Your task to perform on an android device: Set the phone to "Do not disturb". Image 0: 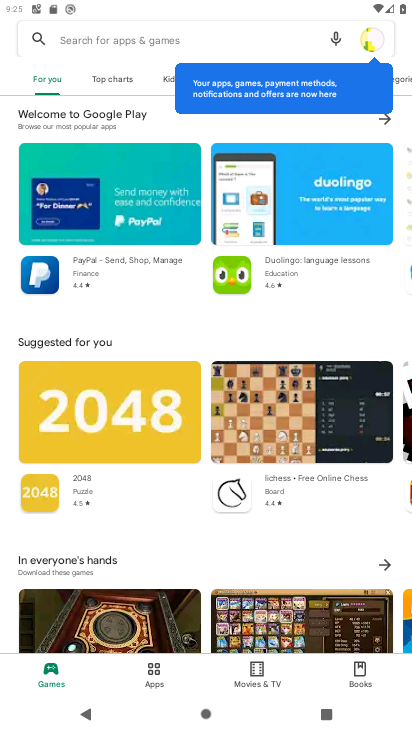
Step 0: press home button
Your task to perform on an android device: Set the phone to "Do not disturb". Image 1: 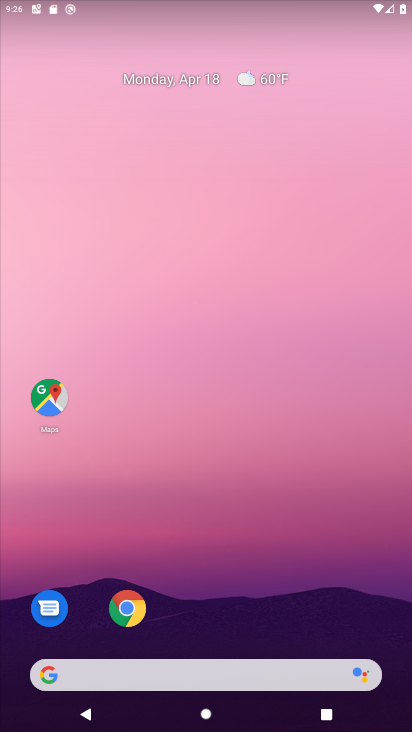
Step 1: drag from (304, 210) to (291, 116)
Your task to perform on an android device: Set the phone to "Do not disturb". Image 2: 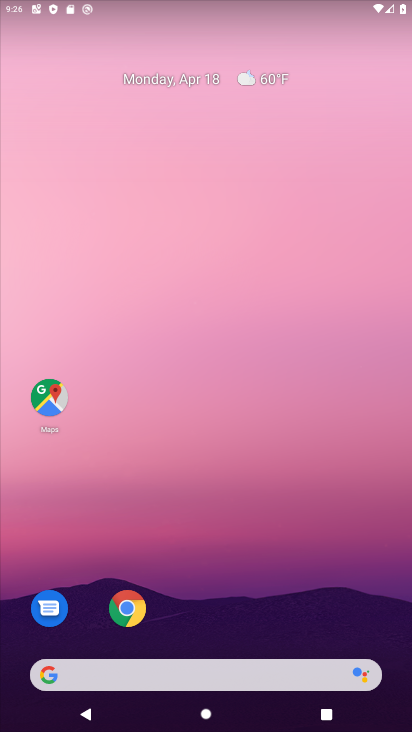
Step 2: drag from (334, 313) to (319, 181)
Your task to perform on an android device: Set the phone to "Do not disturb". Image 3: 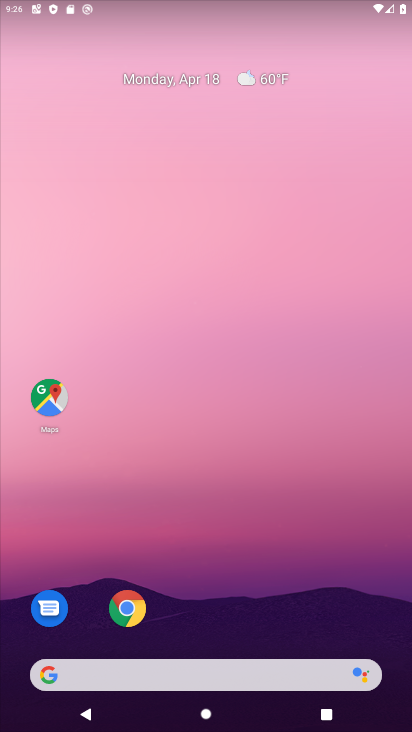
Step 3: drag from (336, 436) to (296, 96)
Your task to perform on an android device: Set the phone to "Do not disturb". Image 4: 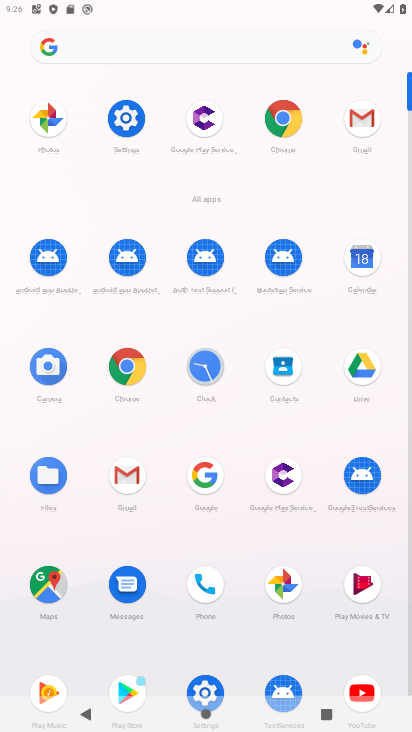
Step 4: click (132, 116)
Your task to perform on an android device: Set the phone to "Do not disturb". Image 5: 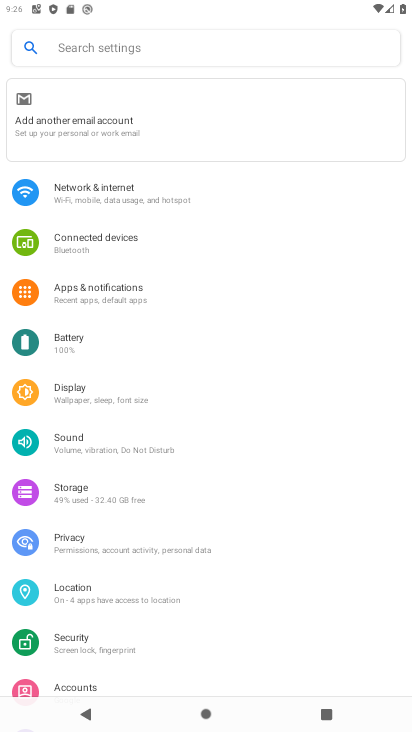
Step 5: click (62, 437)
Your task to perform on an android device: Set the phone to "Do not disturb". Image 6: 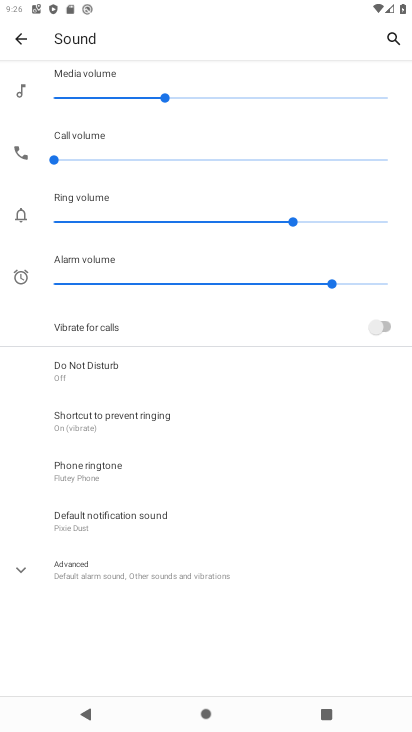
Step 6: click (89, 369)
Your task to perform on an android device: Set the phone to "Do not disturb". Image 7: 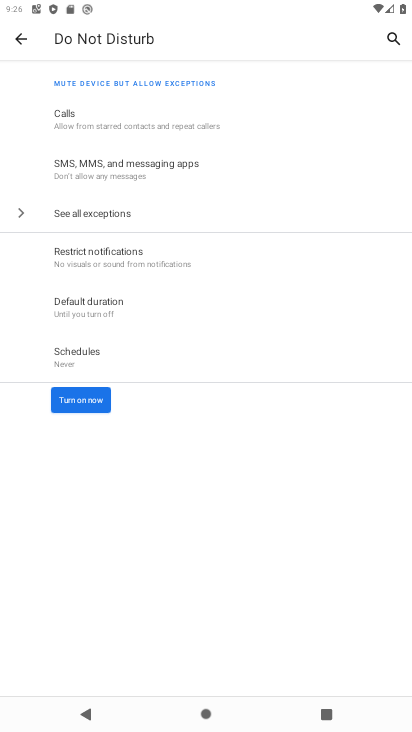
Step 7: click (80, 397)
Your task to perform on an android device: Set the phone to "Do not disturb". Image 8: 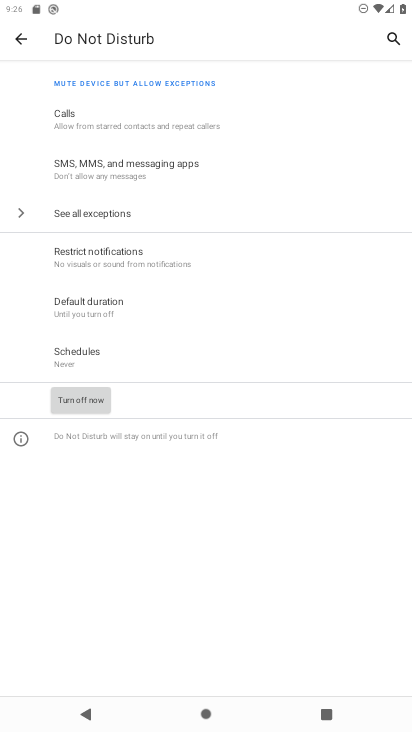
Step 8: task complete